Your task to perform on an android device: Search for the best rated 3d printer on Amazon. Image 0: 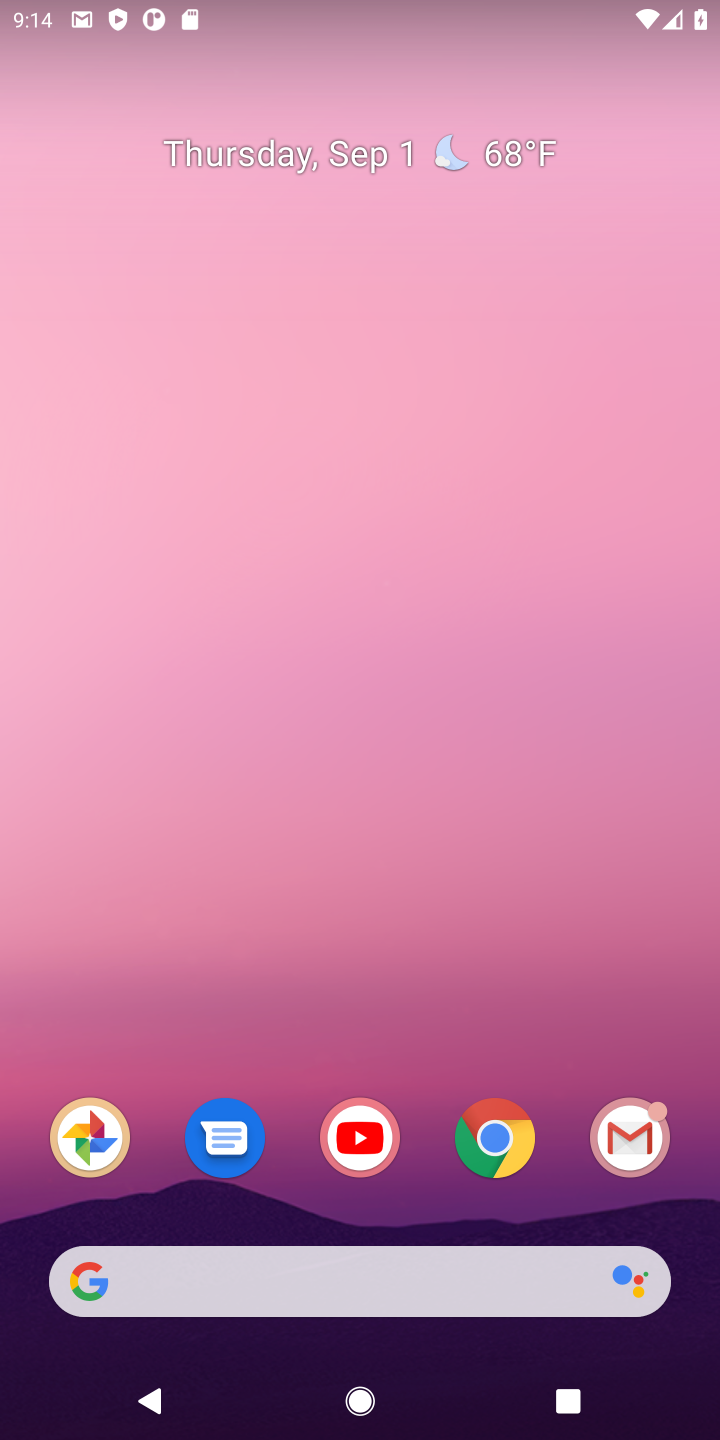
Step 0: click (487, 1164)
Your task to perform on an android device: Search for the best rated 3d printer on Amazon. Image 1: 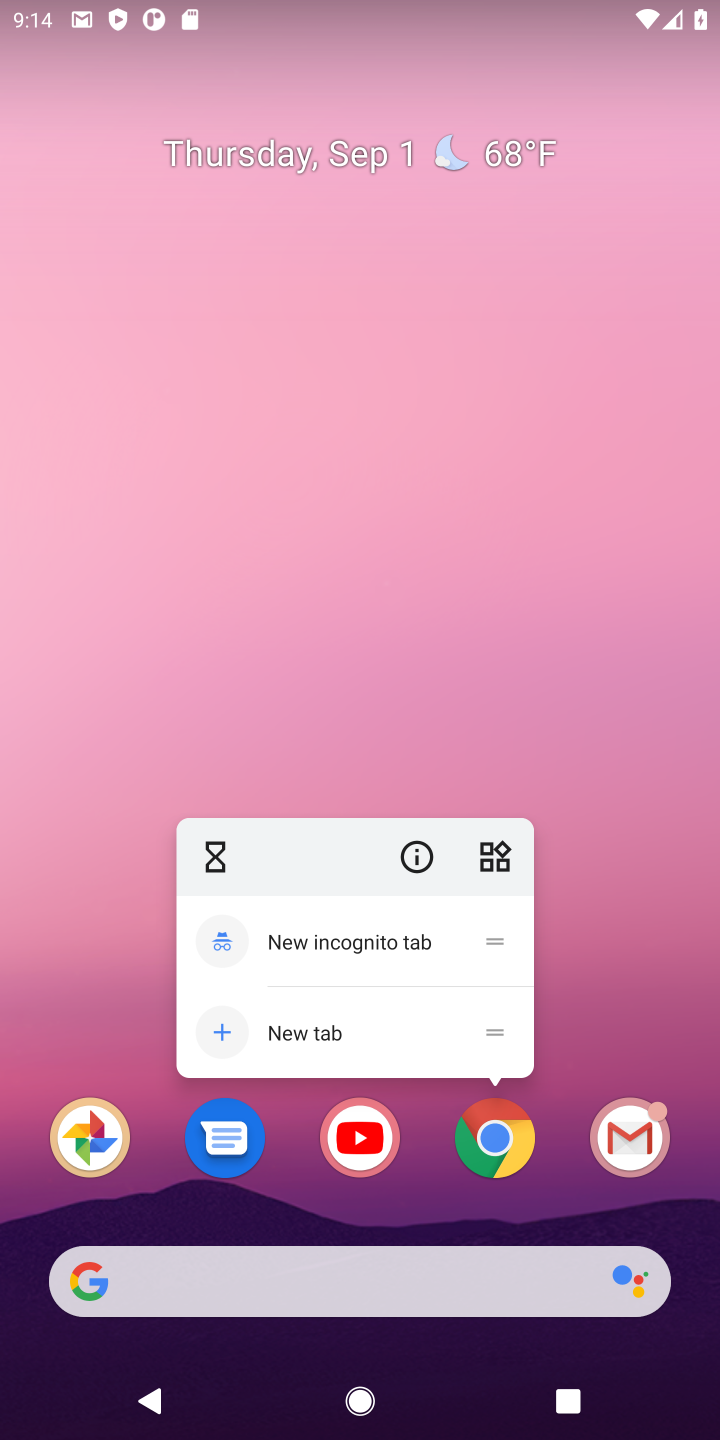
Step 1: click (502, 1140)
Your task to perform on an android device: Search for the best rated 3d printer on Amazon. Image 2: 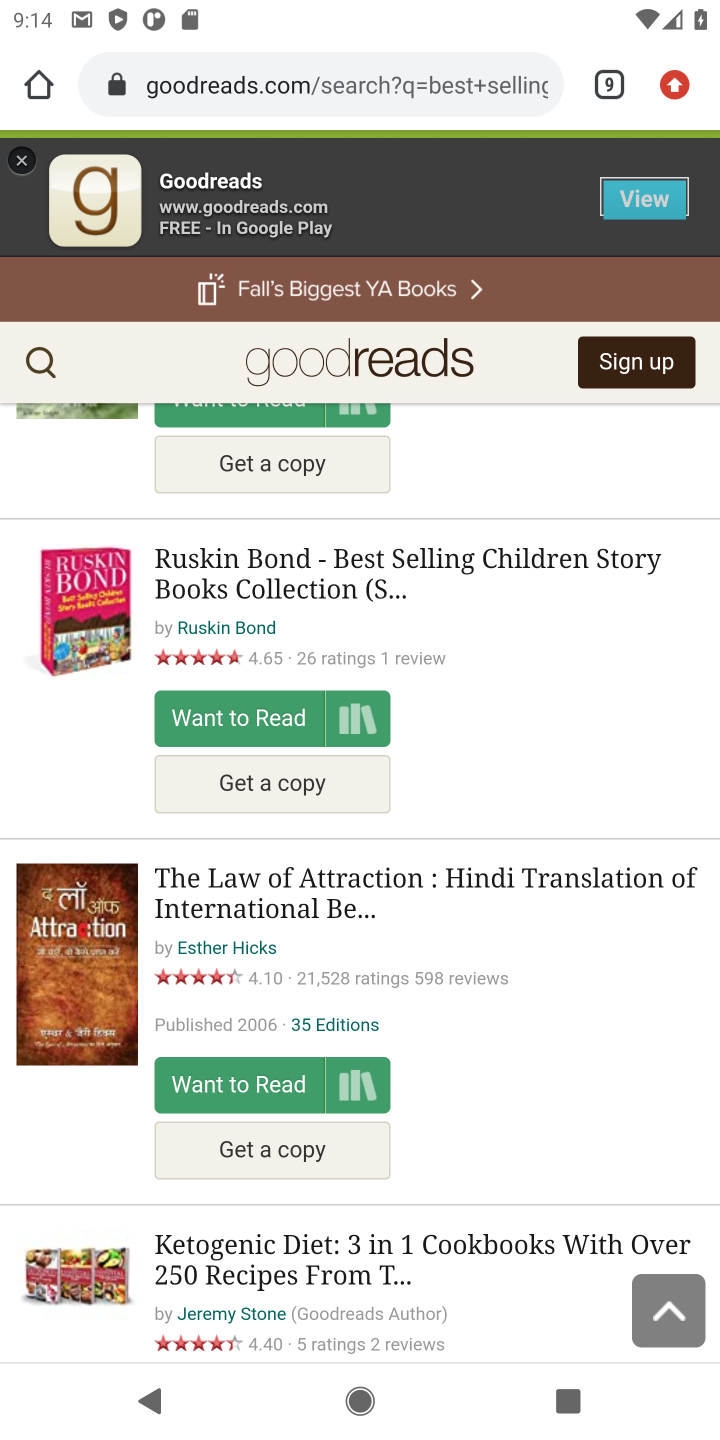
Step 2: click (603, 80)
Your task to perform on an android device: Search for the best rated 3d printer on Amazon. Image 3: 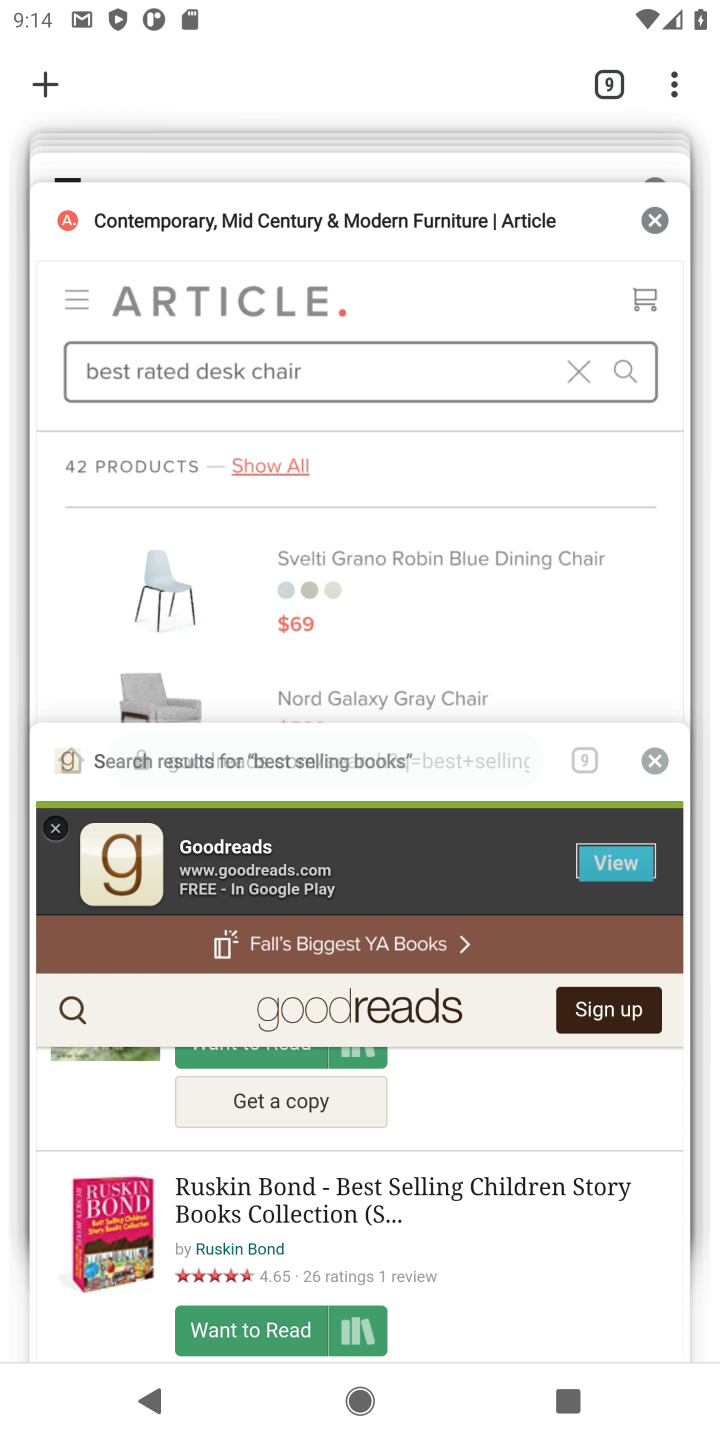
Step 3: drag from (425, 267) to (445, 1018)
Your task to perform on an android device: Search for the best rated 3d printer on Amazon. Image 4: 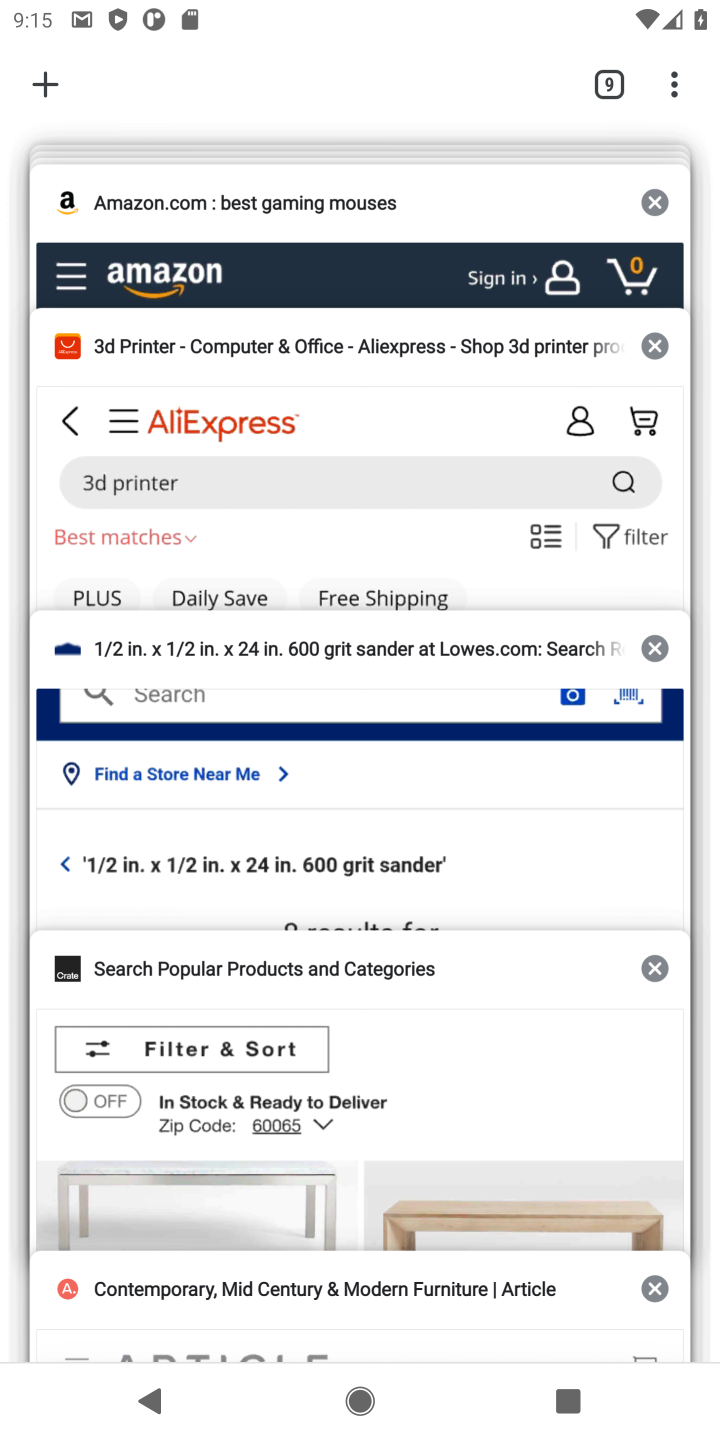
Step 4: click (340, 261)
Your task to perform on an android device: Search for the best rated 3d printer on Amazon. Image 5: 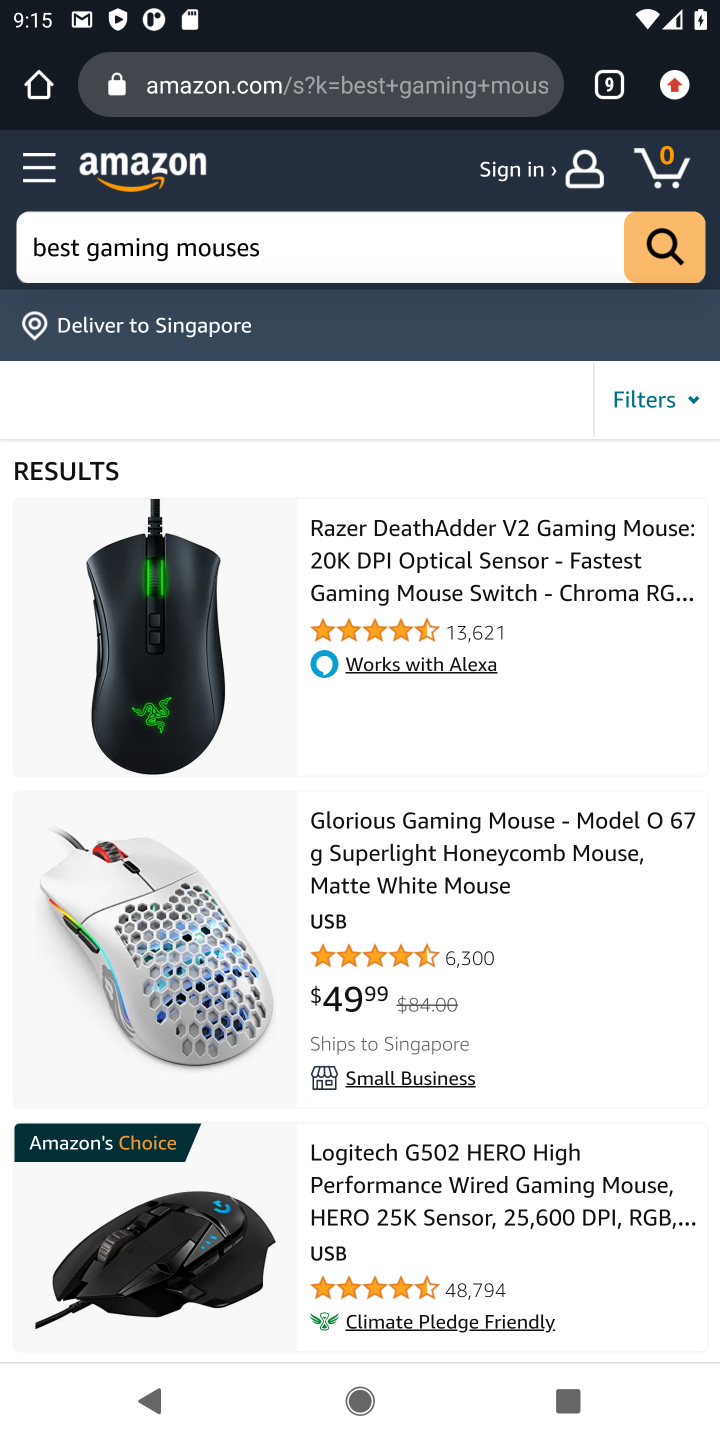
Step 5: click (492, 250)
Your task to perform on an android device: Search for the best rated 3d printer on Amazon. Image 6: 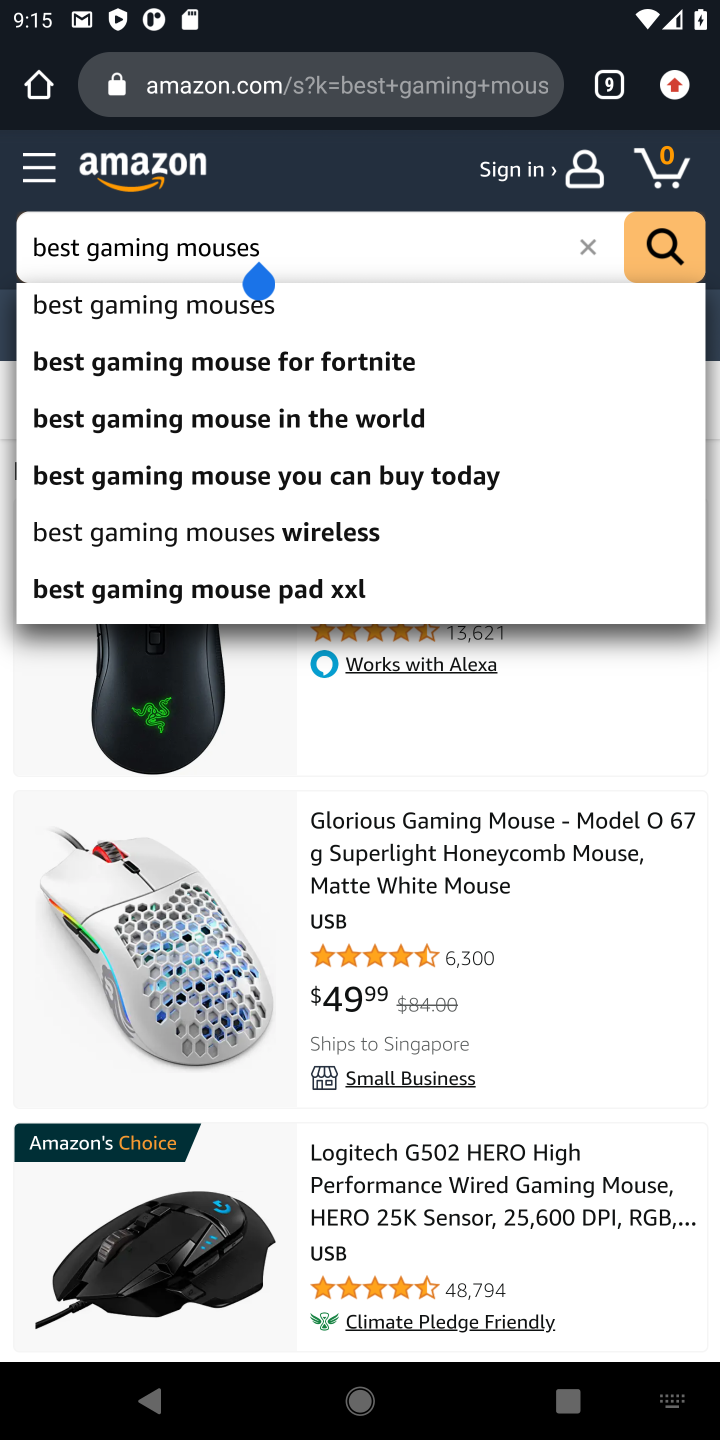
Step 6: click (588, 246)
Your task to perform on an android device: Search for the best rated 3d printer on Amazon. Image 7: 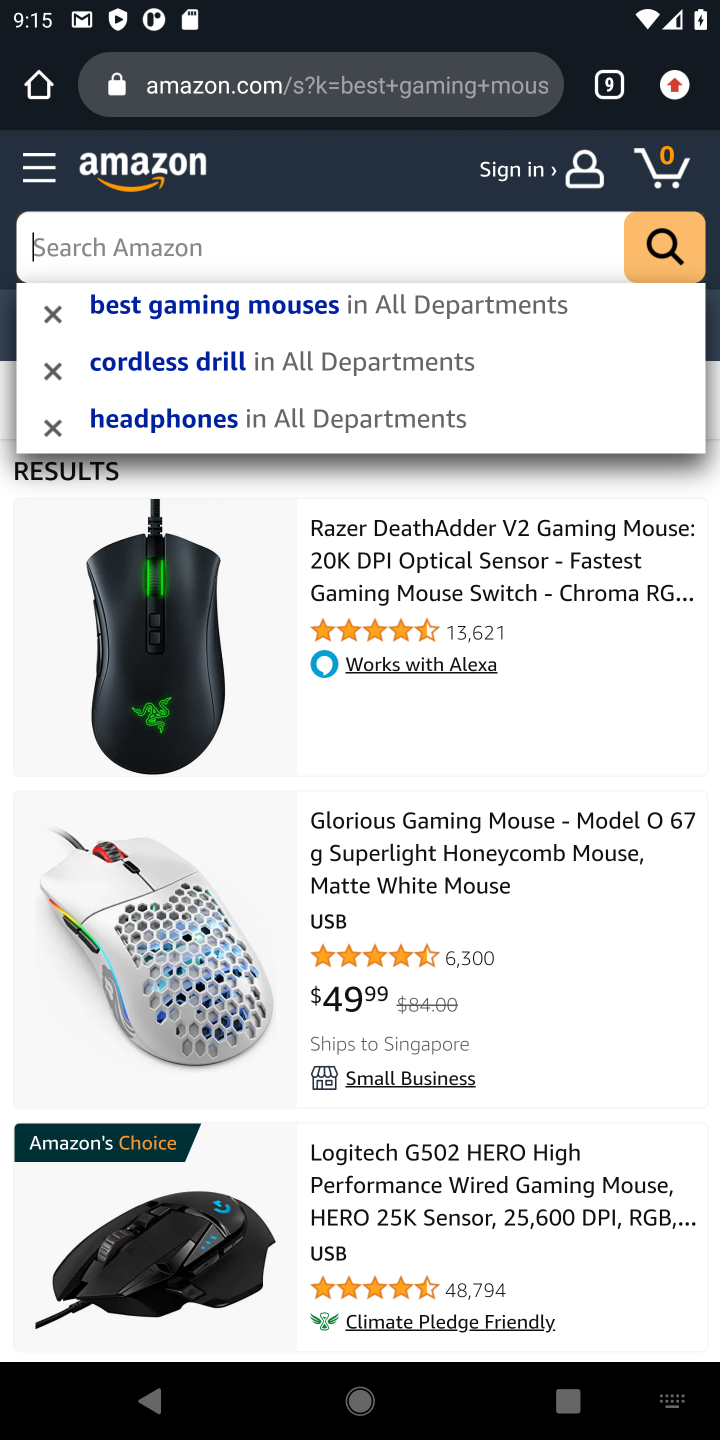
Step 7: type "best rated 3d printer "
Your task to perform on an android device: Search for the best rated 3d printer on Amazon. Image 8: 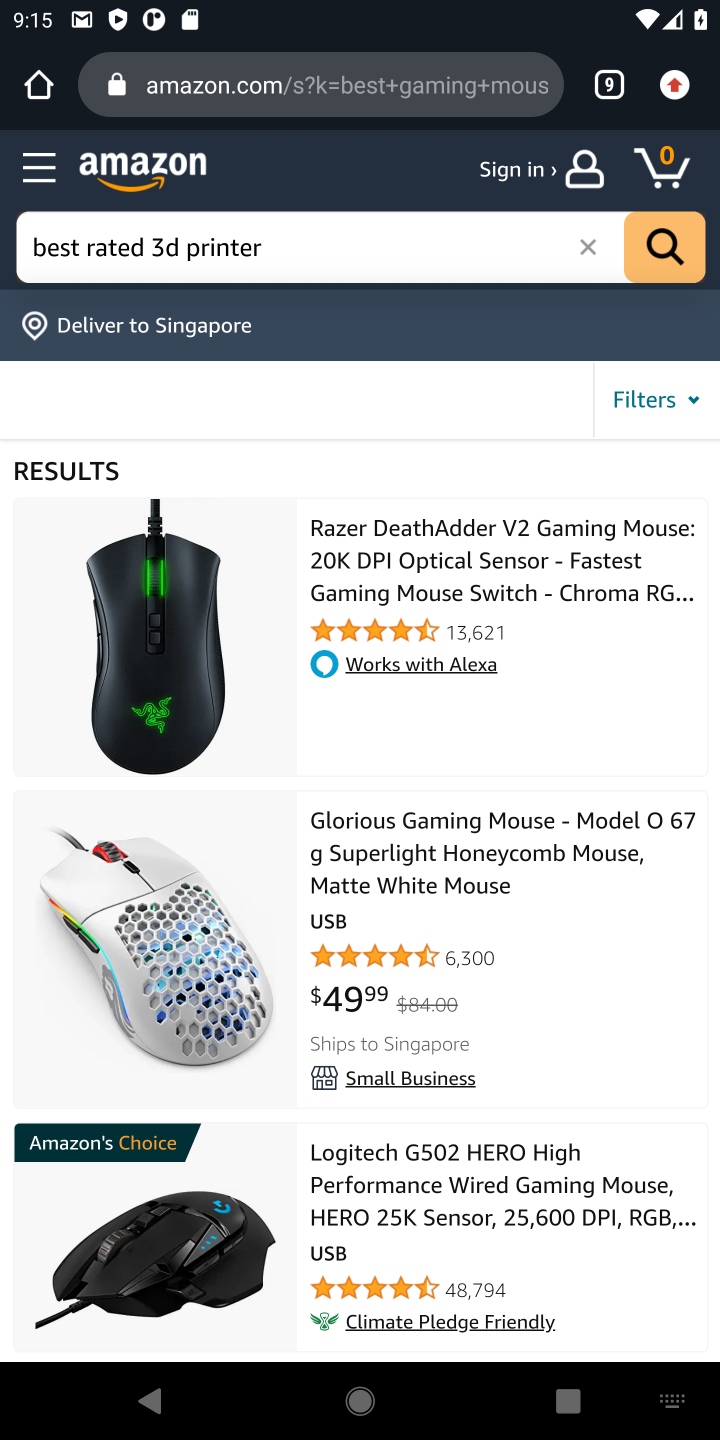
Step 8: click (665, 240)
Your task to perform on an android device: Search for the best rated 3d printer on Amazon. Image 9: 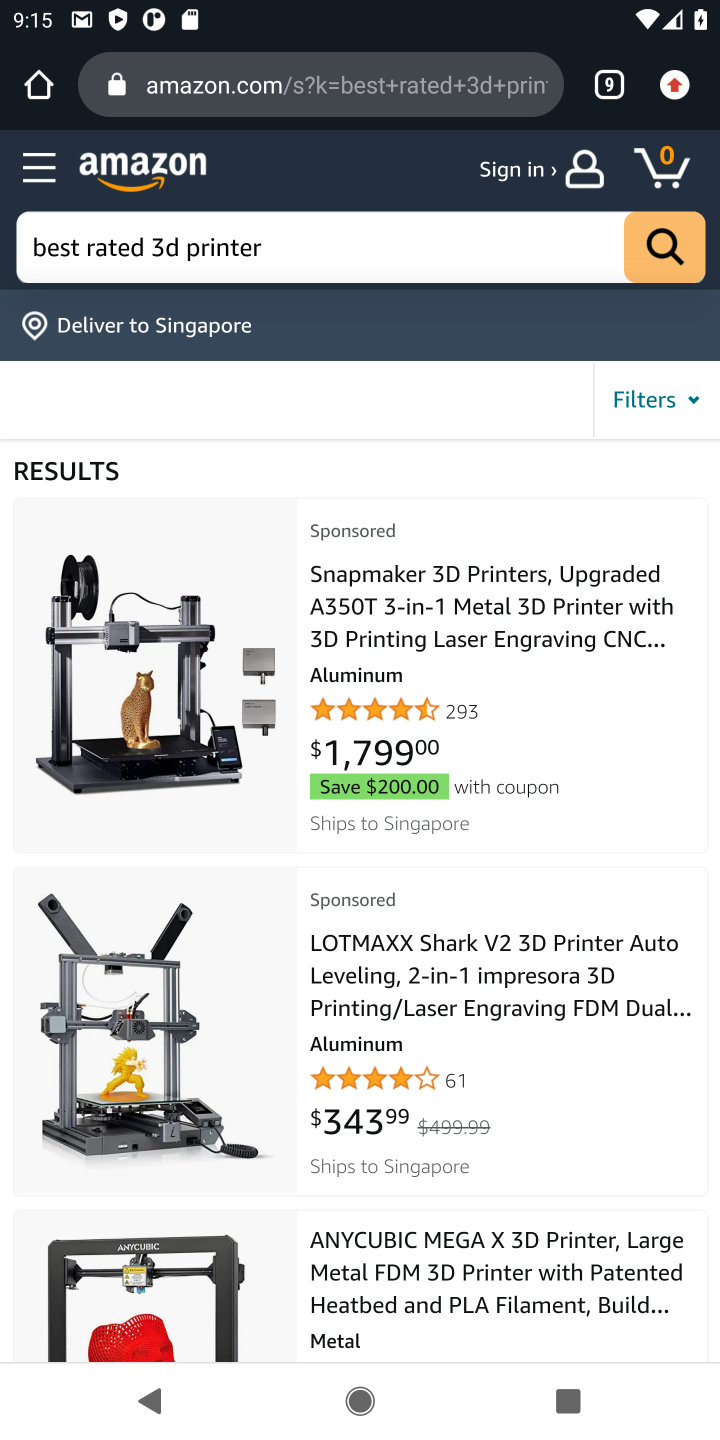
Step 9: task complete